Your task to perform on an android device: turn off airplane mode Image 0: 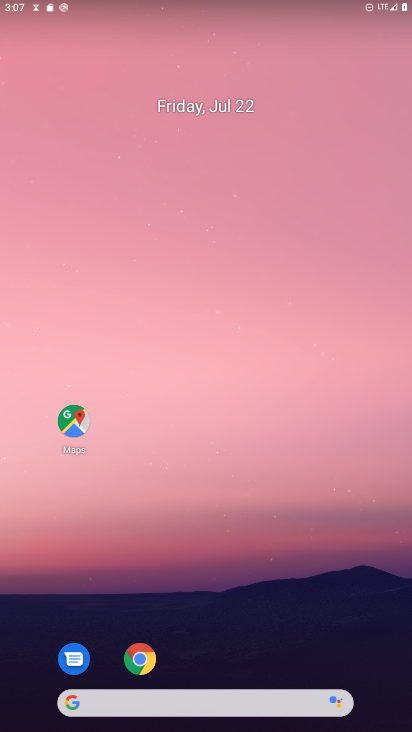
Step 0: drag from (259, 650) to (259, 112)
Your task to perform on an android device: turn off airplane mode Image 1: 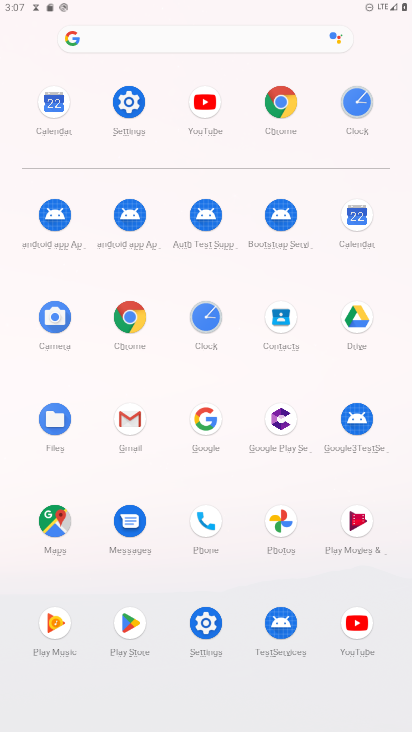
Step 1: click (136, 98)
Your task to perform on an android device: turn off airplane mode Image 2: 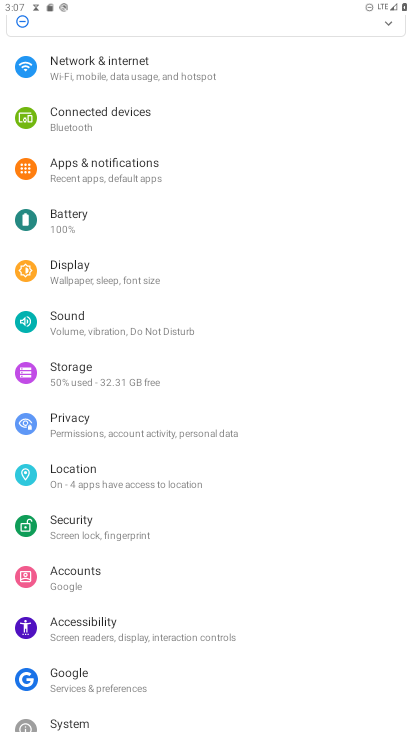
Step 2: drag from (135, 103) to (246, 530)
Your task to perform on an android device: turn off airplane mode Image 3: 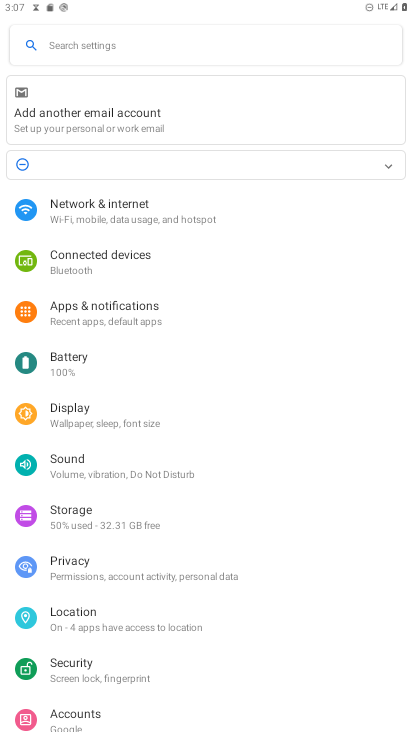
Step 3: click (80, 225)
Your task to perform on an android device: turn off airplane mode Image 4: 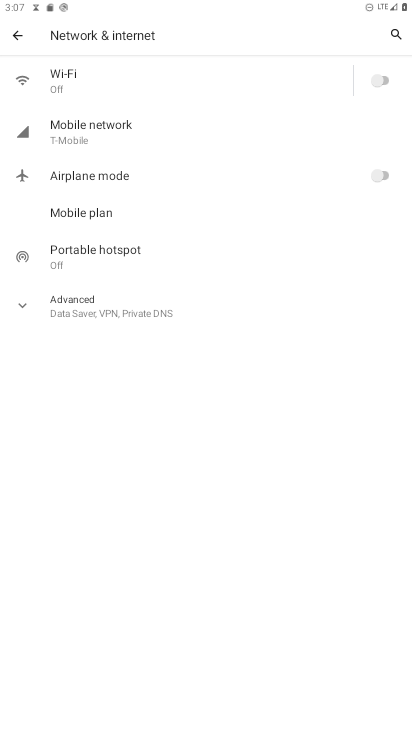
Step 4: task complete